Your task to perform on an android device: Open Reddit.com Image 0: 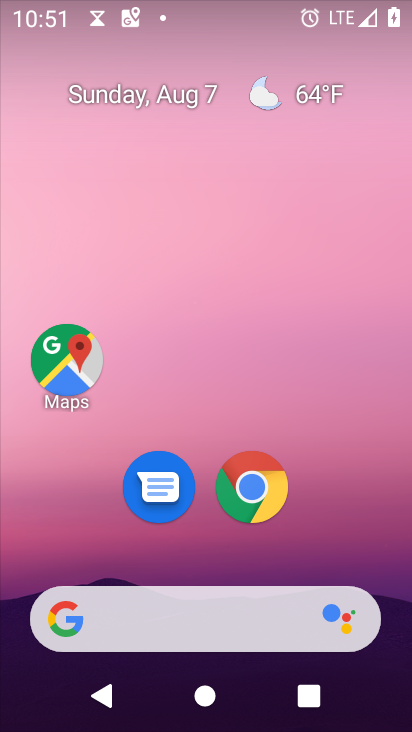
Step 0: click (255, 490)
Your task to perform on an android device: Open Reddit.com Image 1: 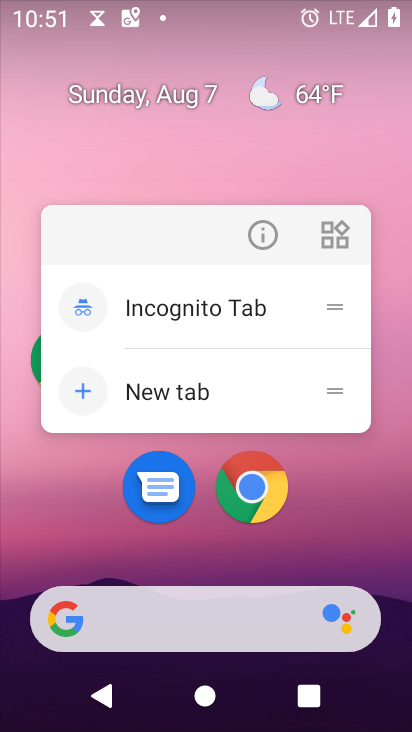
Step 1: click (247, 469)
Your task to perform on an android device: Open Reddit.com Image 2: 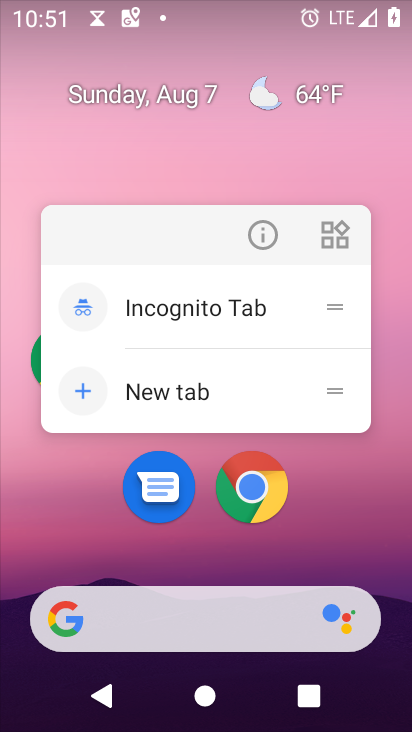
Step 2: click (243, 488)
Your task to perform on an android device: Open Reddit.com Image 3: 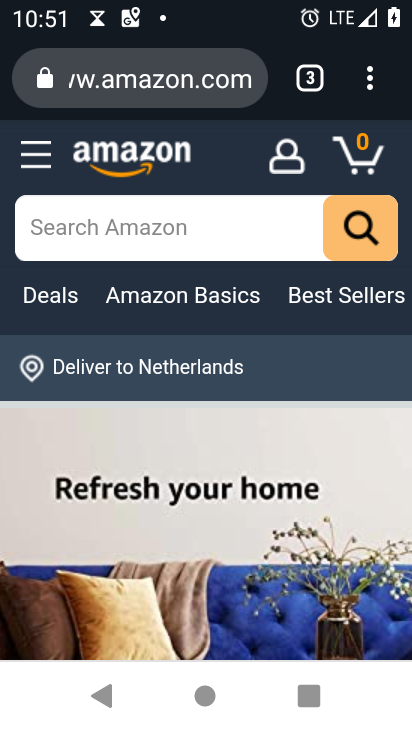
Step 3: click (239, 78)
Your task to perform on an android device: Open Reddit.com Image 4: 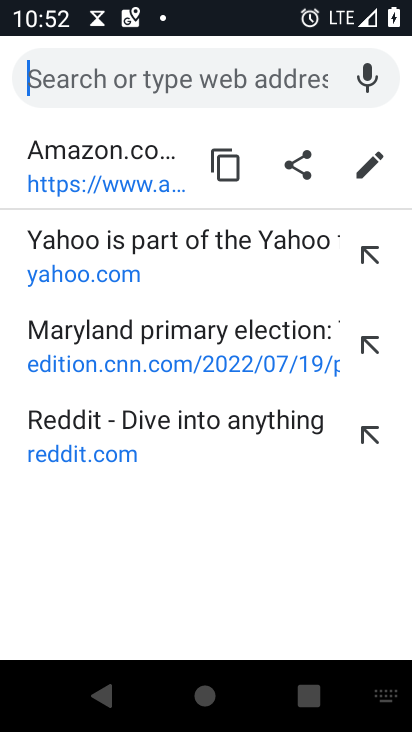
Step 4: type "Reddit.com"
Your task to perform on an android device: Open Reddit.com Image 5: 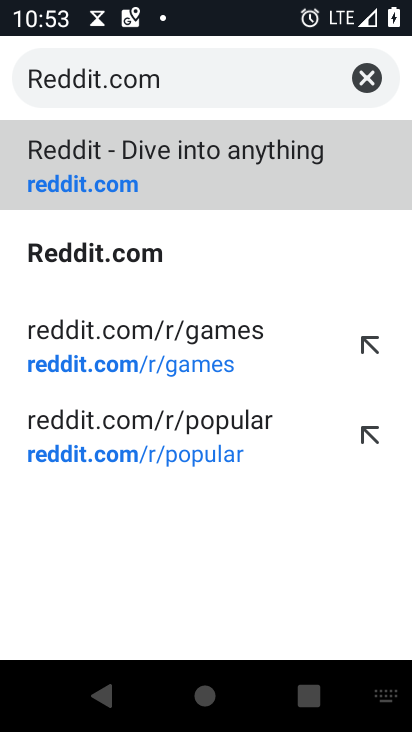
Step 5: click (122, 249)
Your task to perform on an android device: Open Reddit.com Image 6: 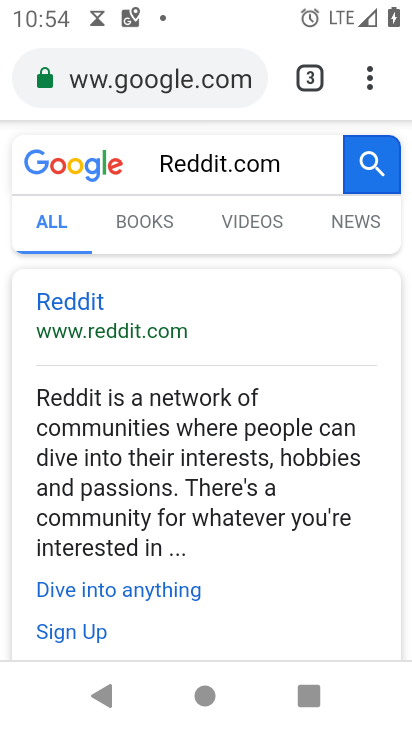
Step 6: task complete